Your task to perform on an android device: What is the recent news? Image 0: 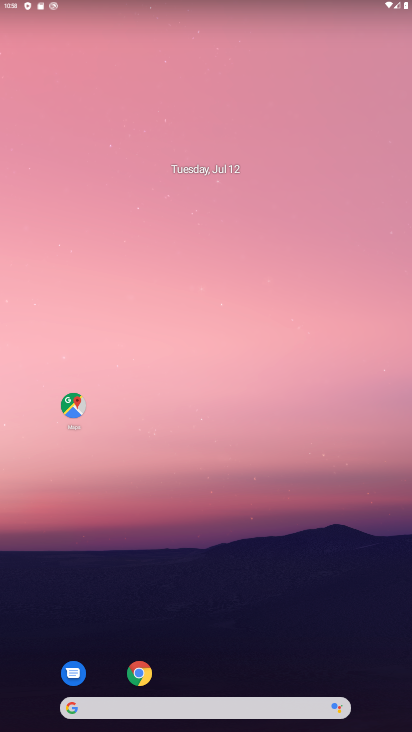
Step 0: drag from (3, 304) to (375, 280)
Your task to perform on an android device: What is the recent news? Image 1: 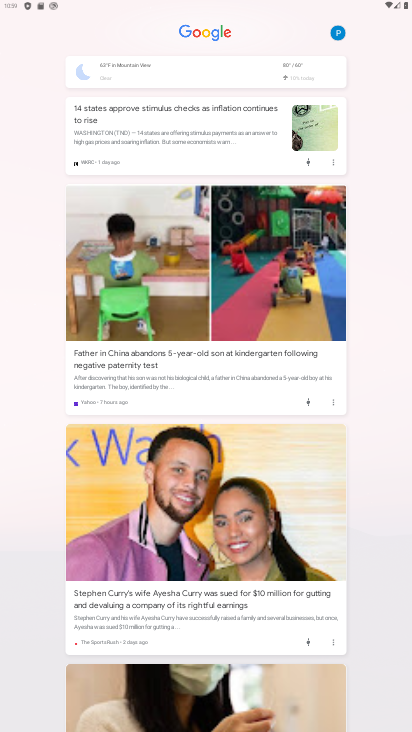
Step 1: task complete